Your task to perform on an android device: toggle sleep mode Image 0: 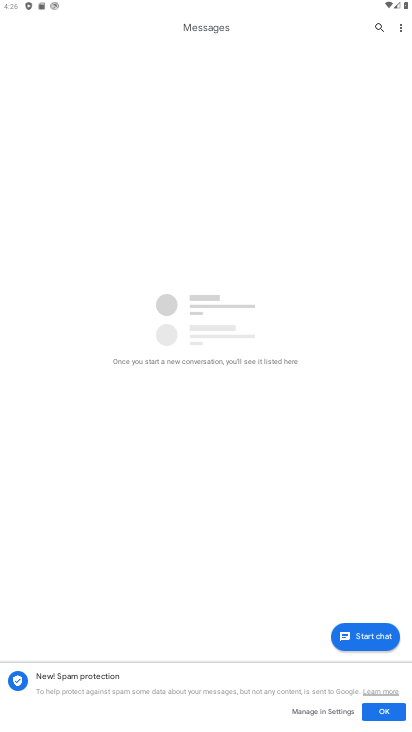
Step 0: press home button
Your task to perform on an android device: toggle sleep mode Image 1: 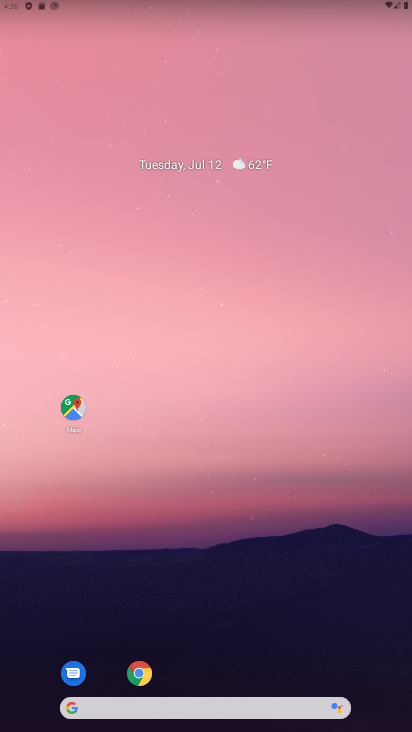
Step 1: drag from (214, 725) to (246, 77)
Your task to perform on an android device: toggle sleep mode Image 2: 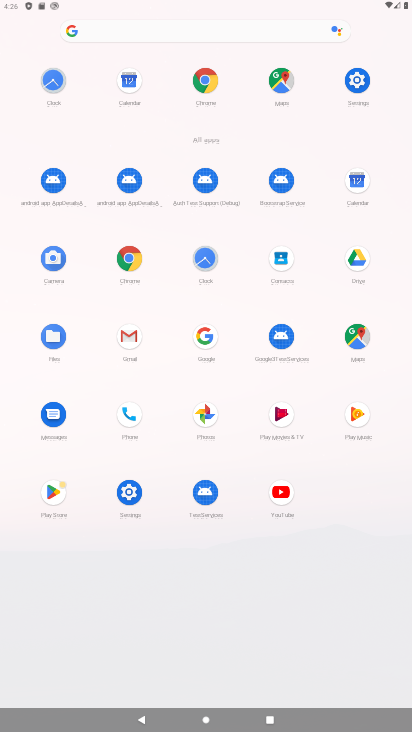
Step 2: click (357, 84)
Your task to perform on an android device: toggle sleep mode Image 3: 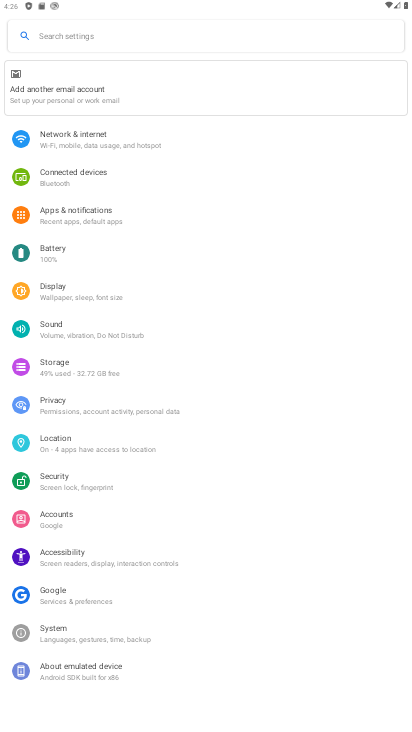
Step 3: click (74, 299)
Your task to perform on an android device: toggle sleep mode Image 4: 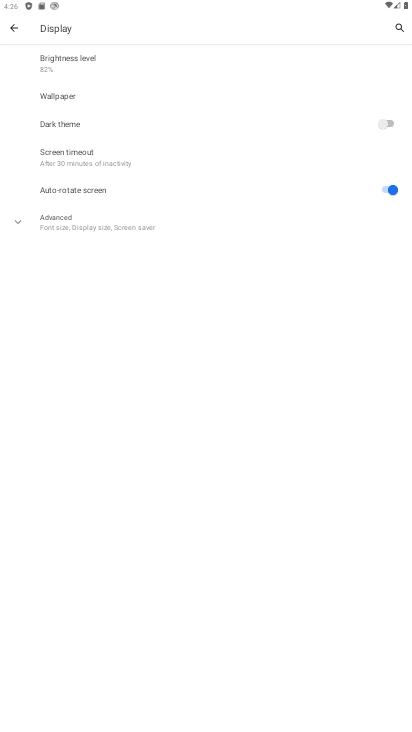
Step 4: click (16, 23)
Your task to perform on an android device: toggle sleep mode Image 5: 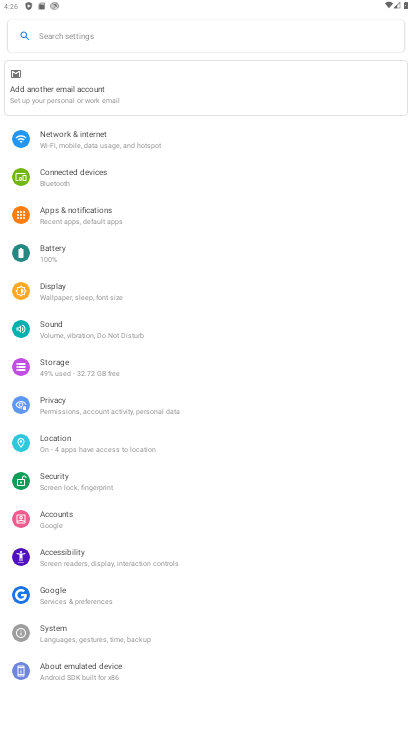
Step 5: task complete